Your task to perform on an android device: Do I have any events this weekend? Image 0: 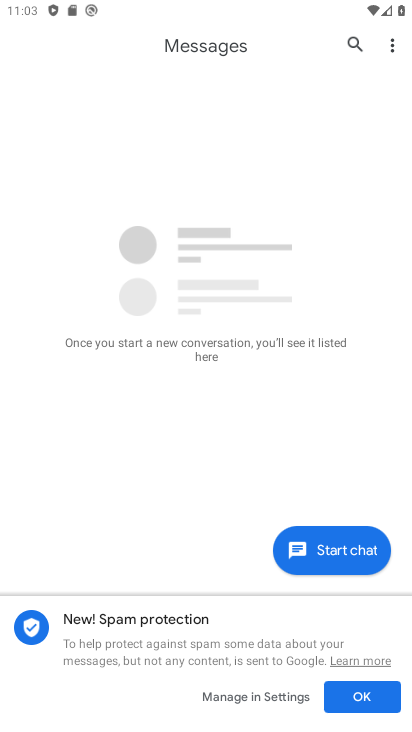
Step 0: press home button
Your task to perform on an android device: Do I have any events this weekend? Image 1: 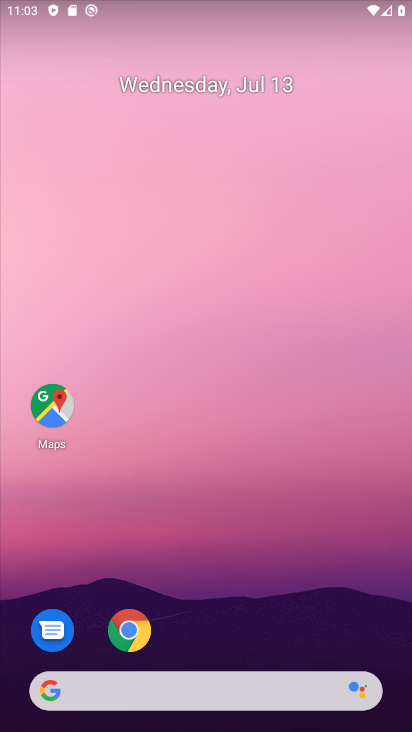
Step 1: drag from (331, 598) to (314, 72)
Your task to perform on an android device: Do I have any events this weekend? Image 2: 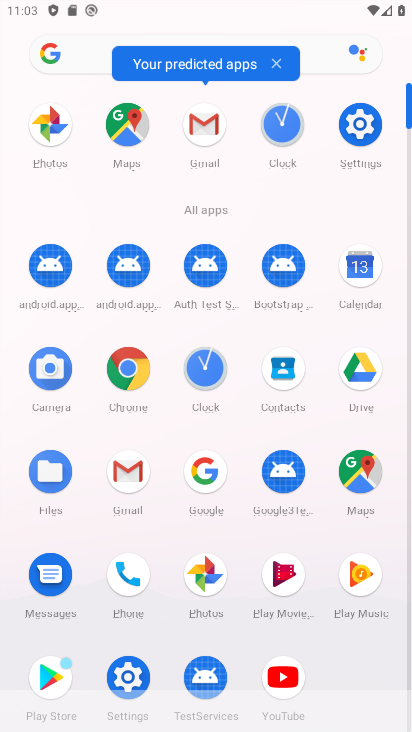
Step 2: click (358, 257)
Your task to perform on an android device: Do I have any events this weekend? Image 3: 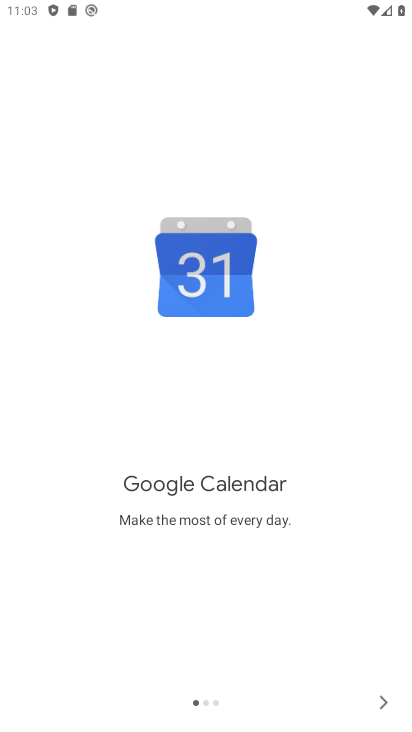
Step 3: click (379, 700)
Your task to perform on an android device: Do I have any events this weekend? Image 4: 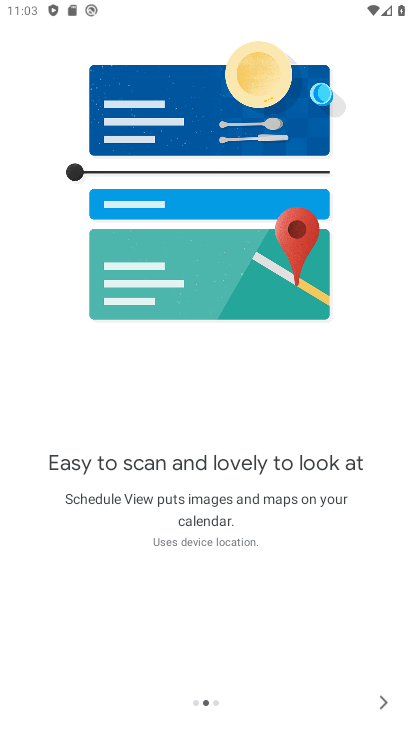
Step 4: click (384, 706)
Your task to perform on an android device: Do I have any events this weekend? Image 5: 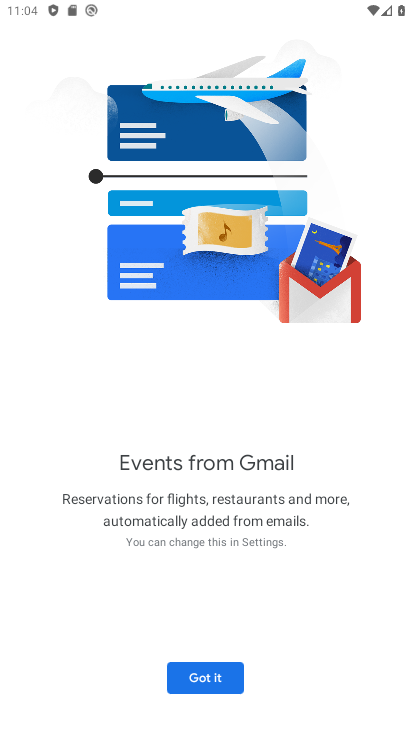
Step 5: click (225, 684)
Your task to perform on an android device: Do I have any events this weekend? Image 6: 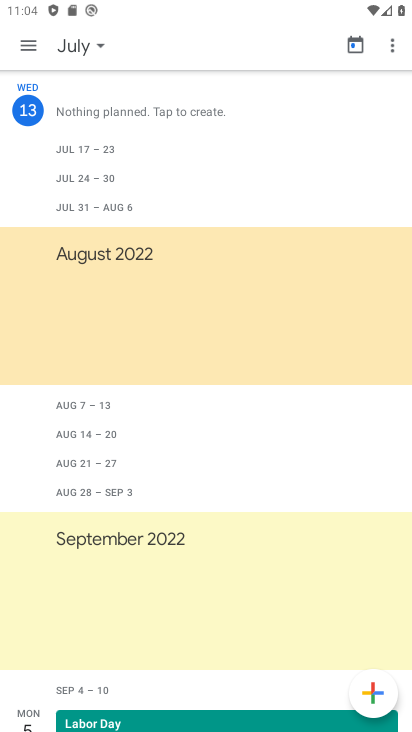
Step 6: task complete